Your task to perform on an android device: Open notification settings Image 0: 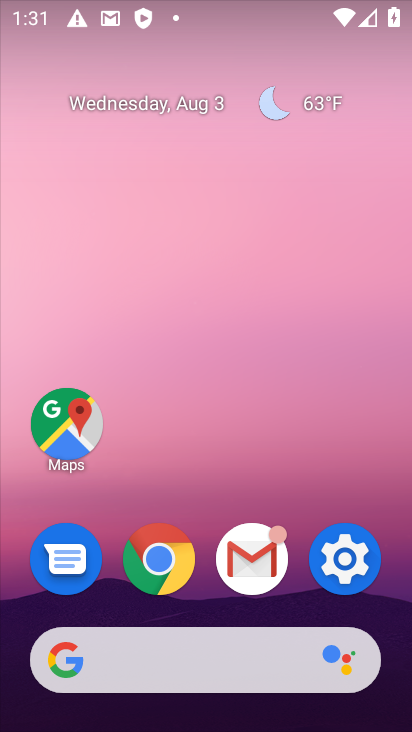
Step 0: press home button
Your task to perform on an android device: Open notification settings Image 1: 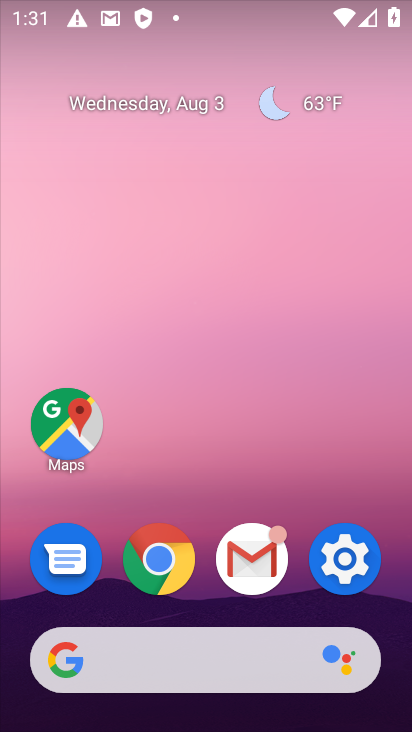
Step 1: click (350, 574)
Your task to perform on an android device: Open notification settings Image 2: 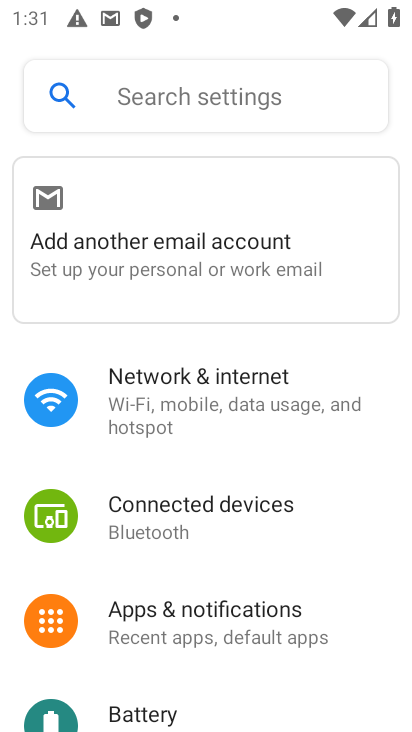
Step 2: click (230, 93)
Your task to perform on an android device: Open notification settings Image 3: 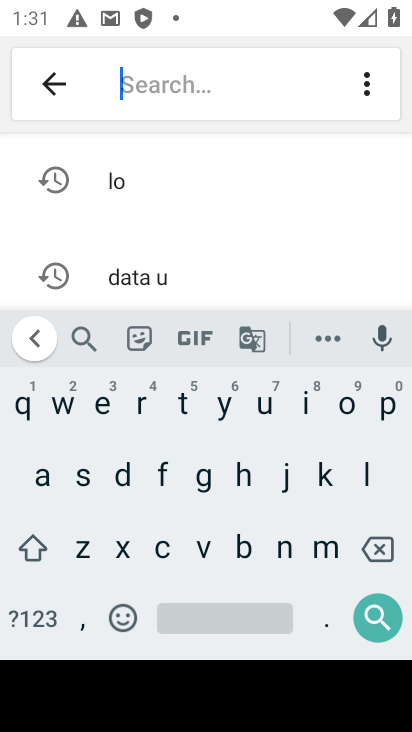
Step 3: click (282, 552)
Your task to perform on an android device: Open notification settings Image 4: 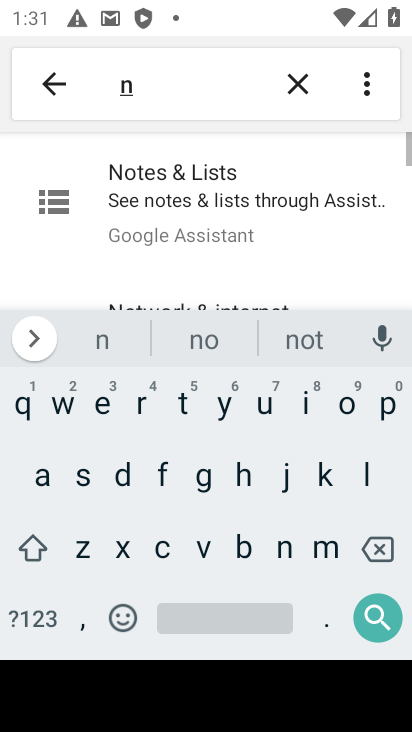
Step 4: click (346, 407)
Your task to perform on an android device: Open notification settings Image 5: 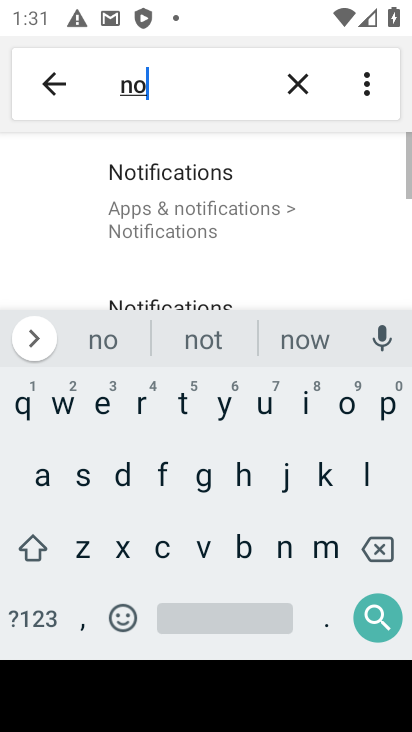
Step 5: click (205, 204)
Your task to perform on an android device: Open notification settings Image 6: 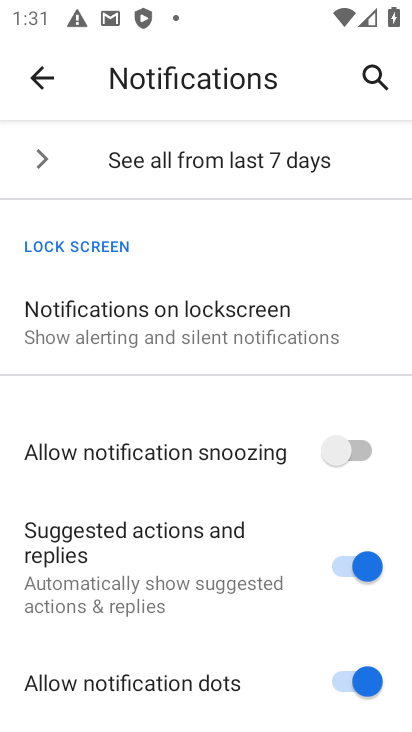
Step 6: click (155, 322)
Your task to perform on an android device: Open notification settings Image 7: 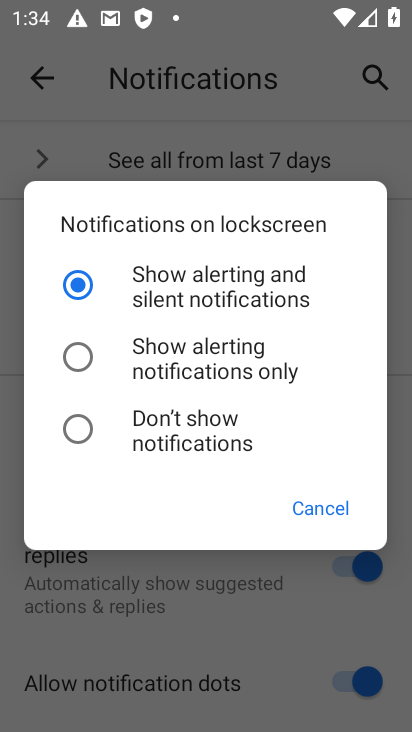
Step 7: task complete